Your task to perform on an android device: open app "DoorDash - Dasher" (install if not already installed) and enter user name: "resistor@inbox.com" and password: "cholera" Image 0: 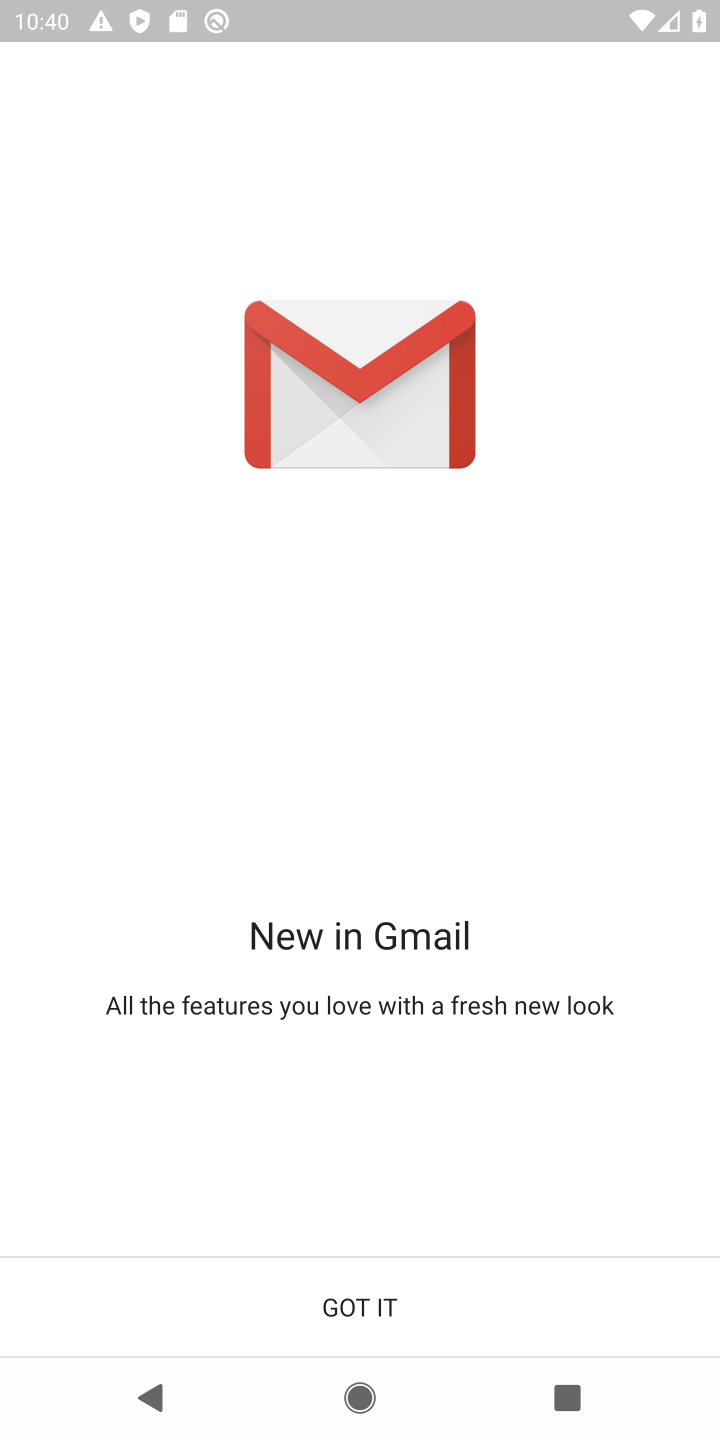
Step 0: press home button
Your task to perform on an android device: open app "DoorDash - Dasher" (install if not already installed) and enter user name: "resistor@inbox.com" and password: "cholera" Image 1: 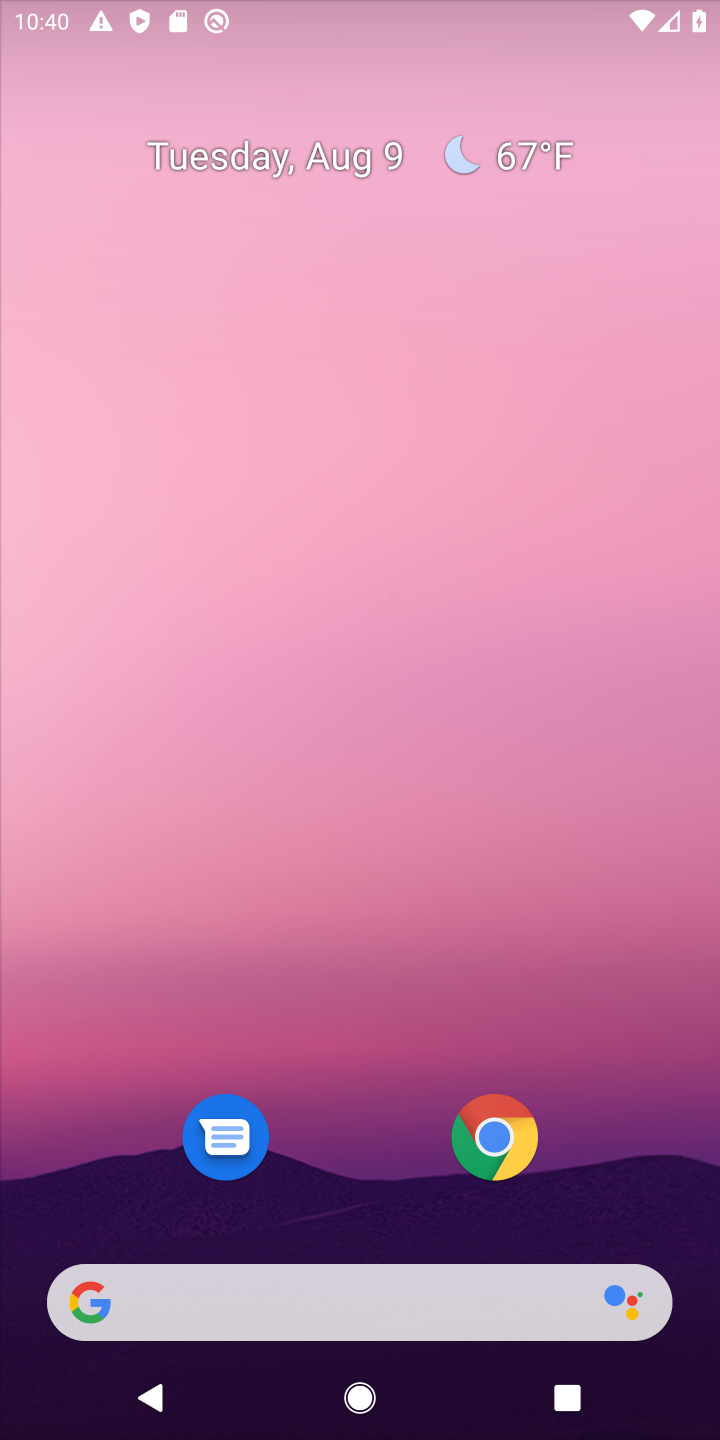
Step 1: drag from (662, 1170) to (433, 36)
Your task to perform on an android device: open app "DoorDash - Dasher" (install if not already installed) and enter user name: "resistor@inbox.com" and password: "cholera" Image 2: 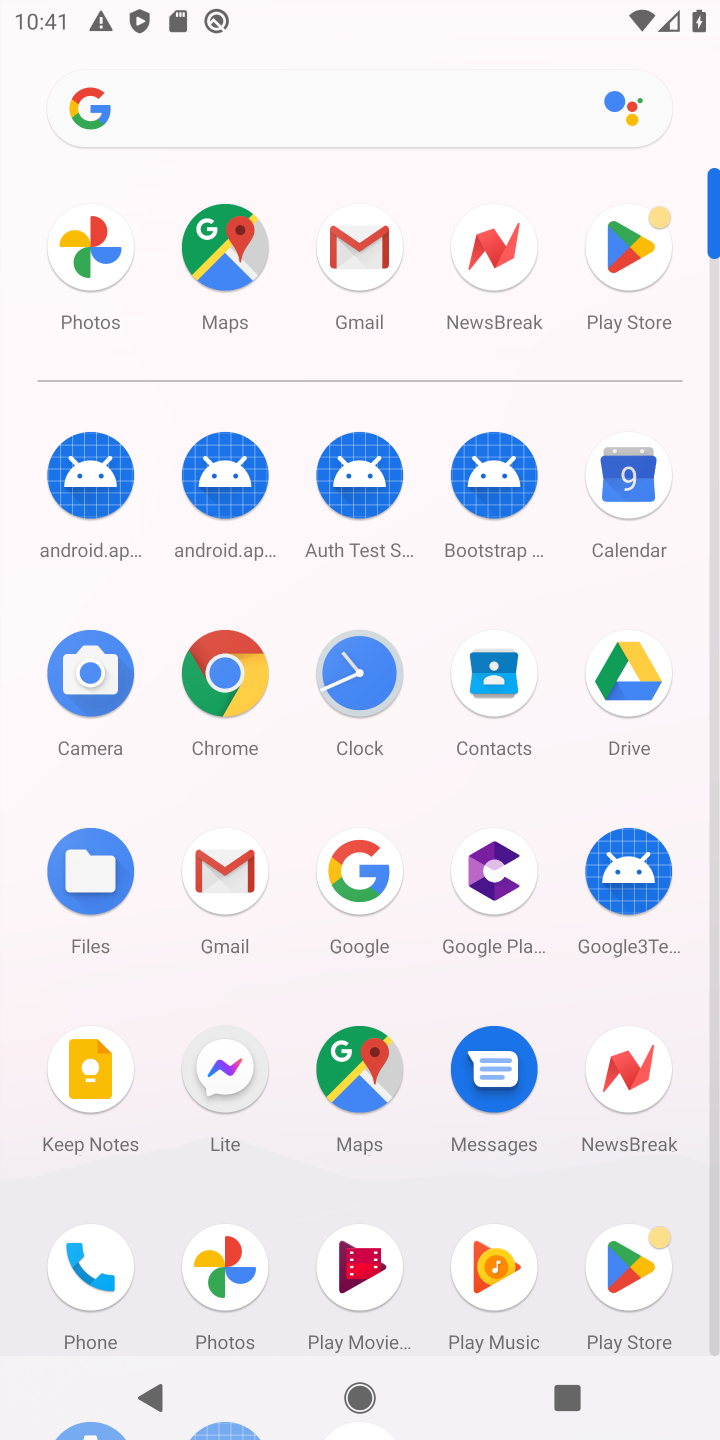
Step 2: click (602, 243)
Your task to perform on an android device: open app "DoorDash - Dasher" (install if not already installed) and enter user name: "resistor@inbox.com" and password: "cholera" Image 3: 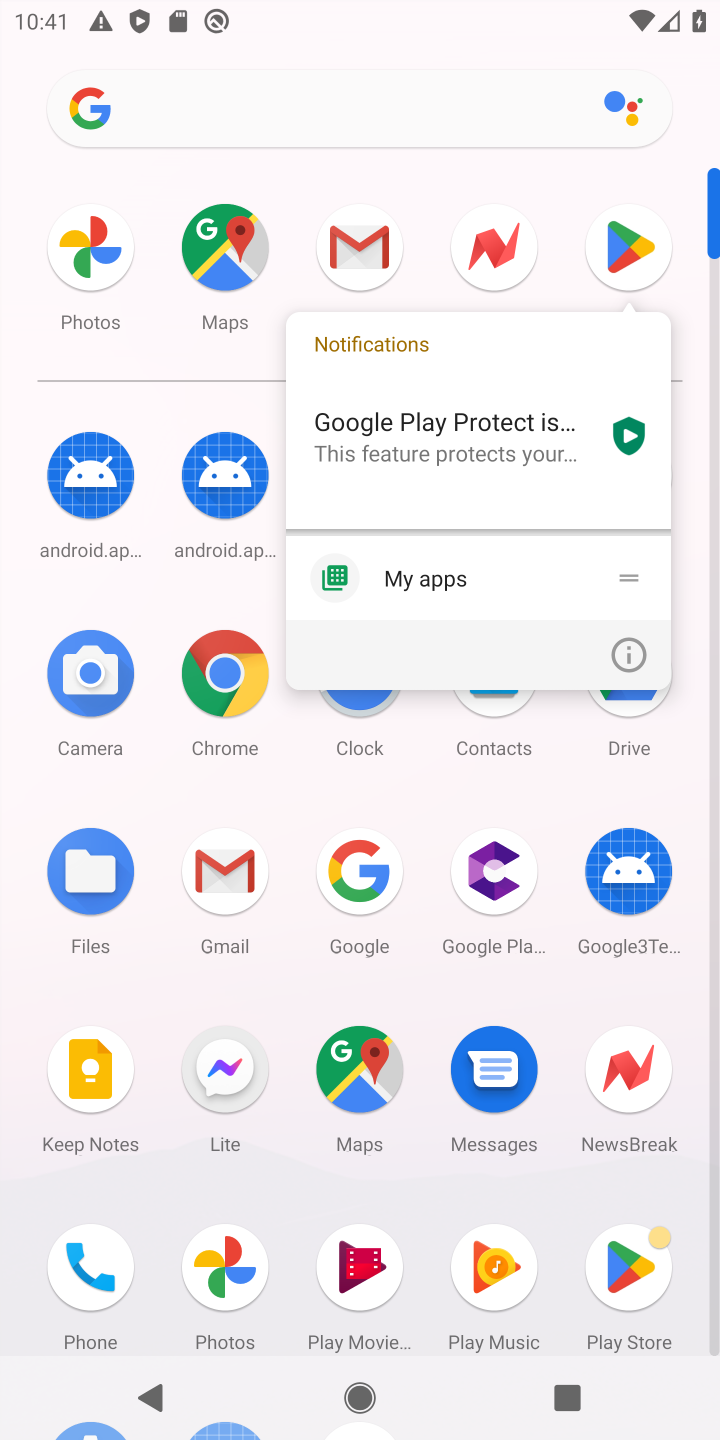
Step 3: click (602, 243)
Your task to perform on an android device: open app "DoorDash - Dasher" (install if not already installed) and enter user name: "resistor@inbox.com" and password: "cholera" Image 4: 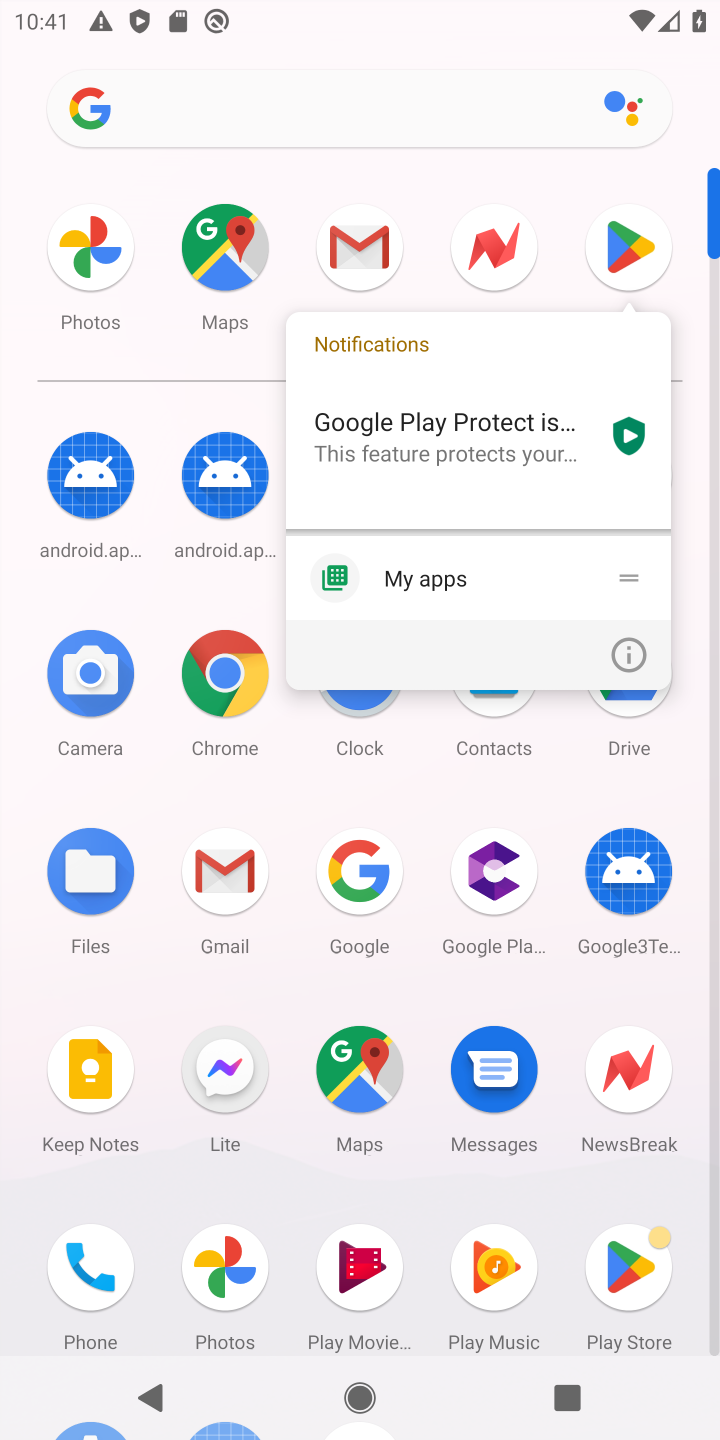
Step 4: click (602, 243)
Your task to perform on an android device: open app "DoorDash - Dasher" (install if not already installed) and enter user name: "resistor@inbox.com" and password: "cholera" Image 5: 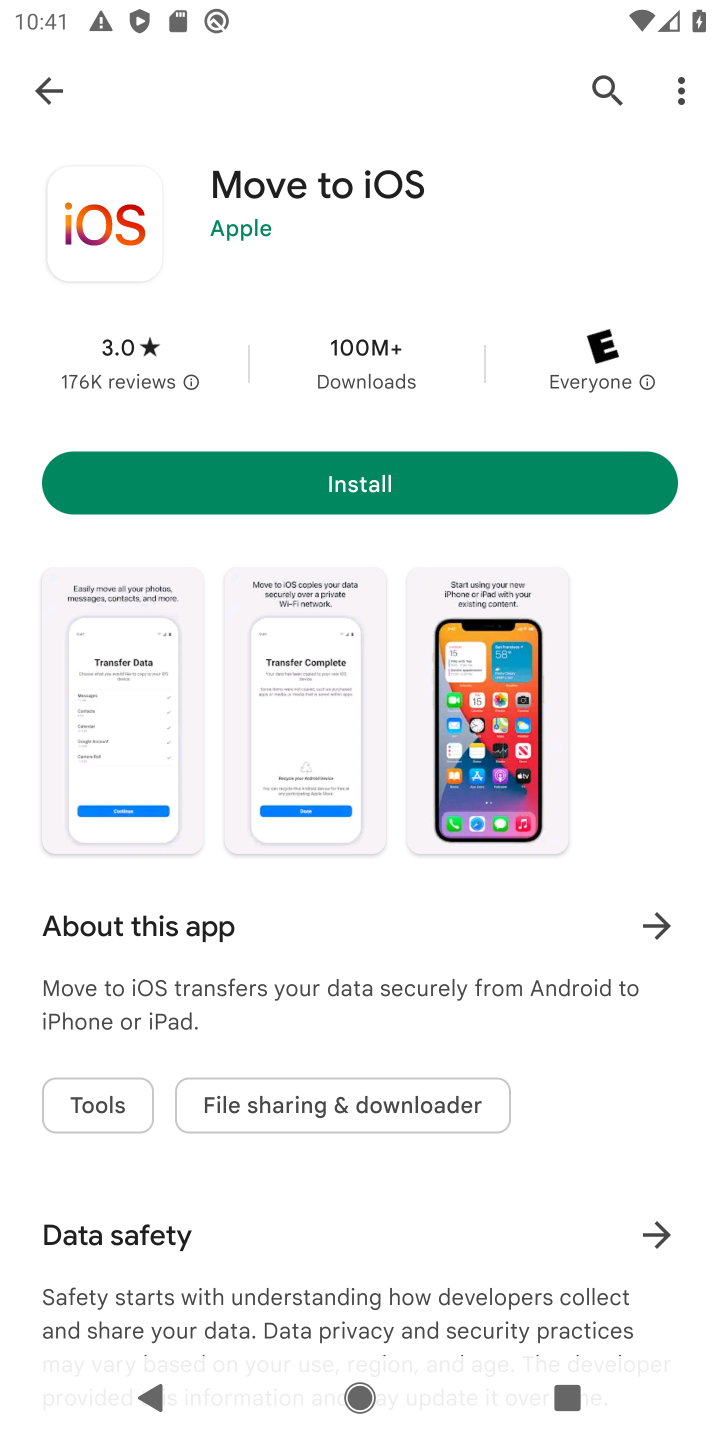
Step 5: press back button
Your task to perform on an android device: open app "DoorDash - Dasher" (install if not already installed) and enter user name: "resistor@inbox.com" and password: "cholera" Image 6: 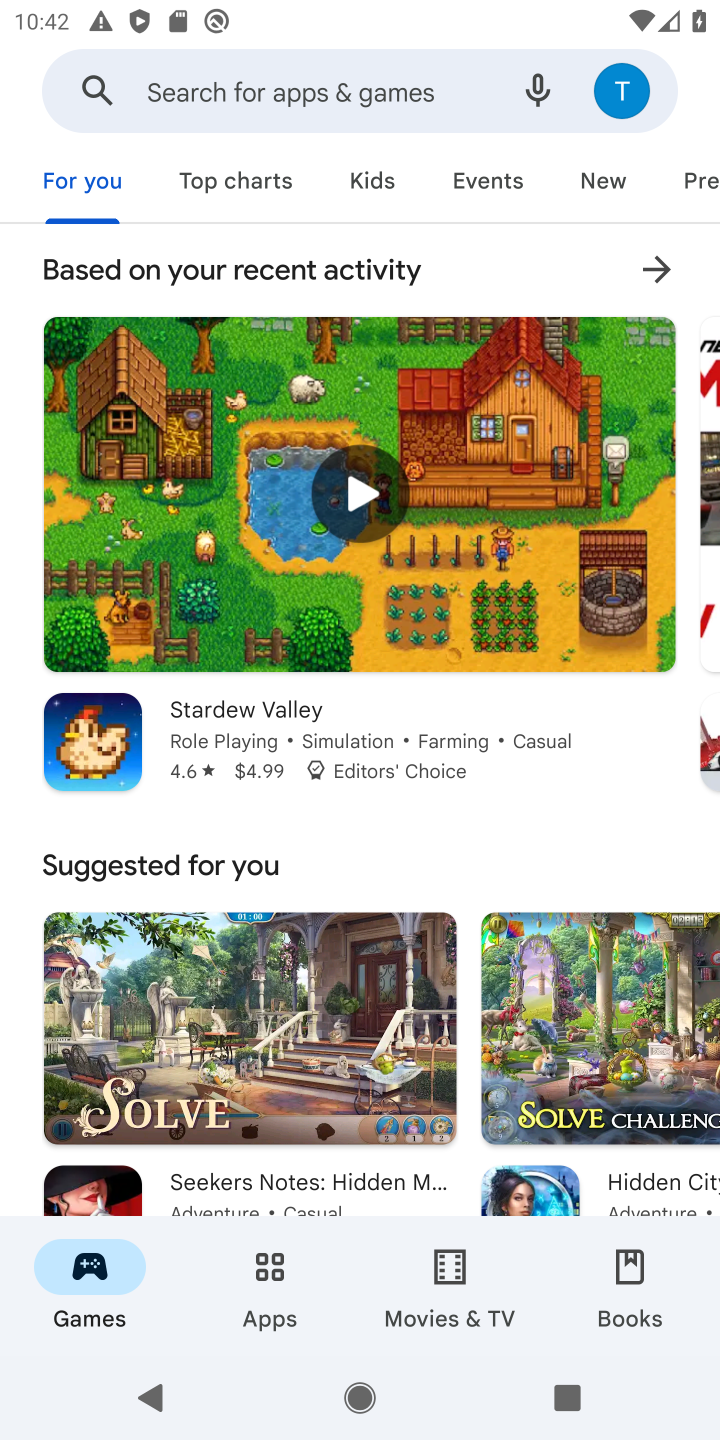
Step 6: click (253, 106)
Your task to perform on an android device: open app "DoorDash - Dasher" (install if not already installed) and enter user name: "resistor@inbox.com" and password: "cholera" Image 7: 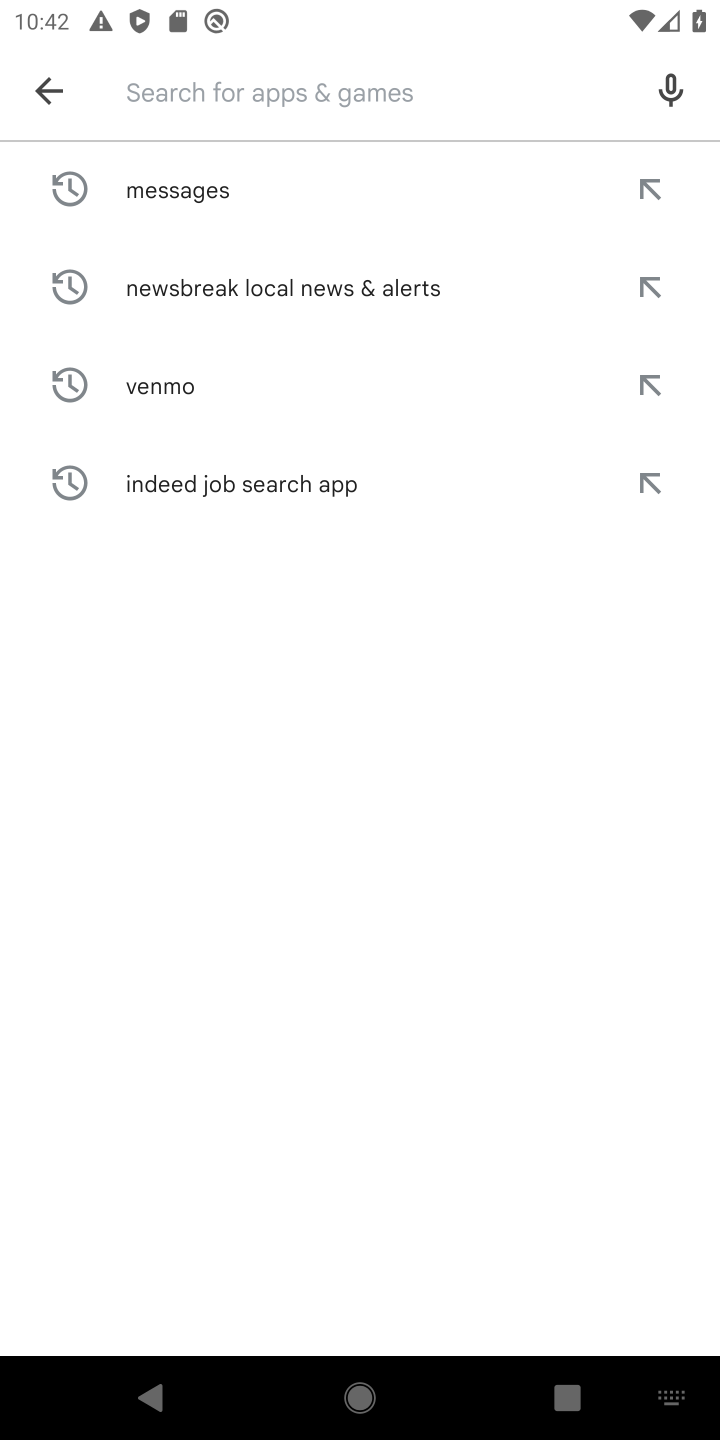
Step 7: type "DoorDash - Dasher"
Your task to perform on an android device: open app "DoorDash - Dasher" (install if not already installed) and enter user name: "resistor@inbox.com" and password: "cholera" Image 8: 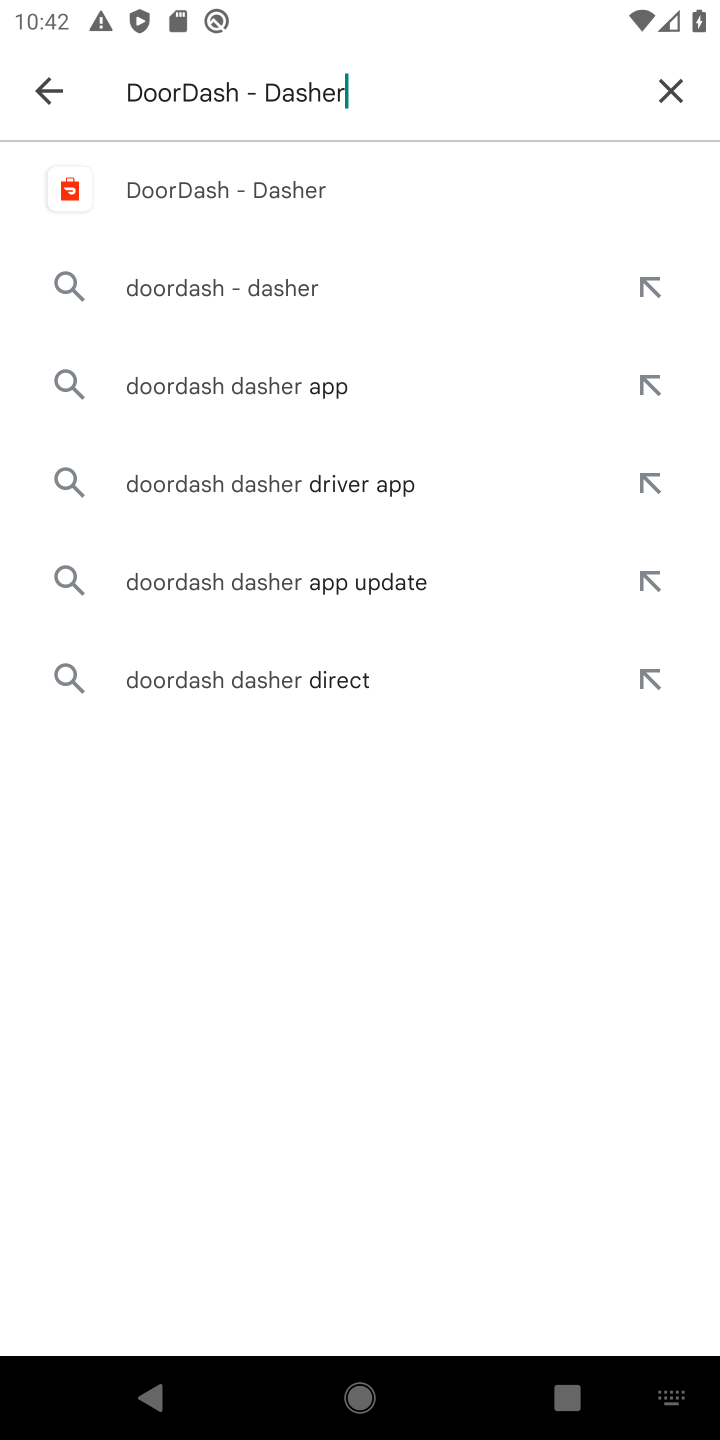
Step 8: click (161, 180)
Your task to perform on an android device: open app "DoorDash - Dasher" (install if not already installed) and enter user name: "resistor@inbox.com" and password: "cholera" Image 9: 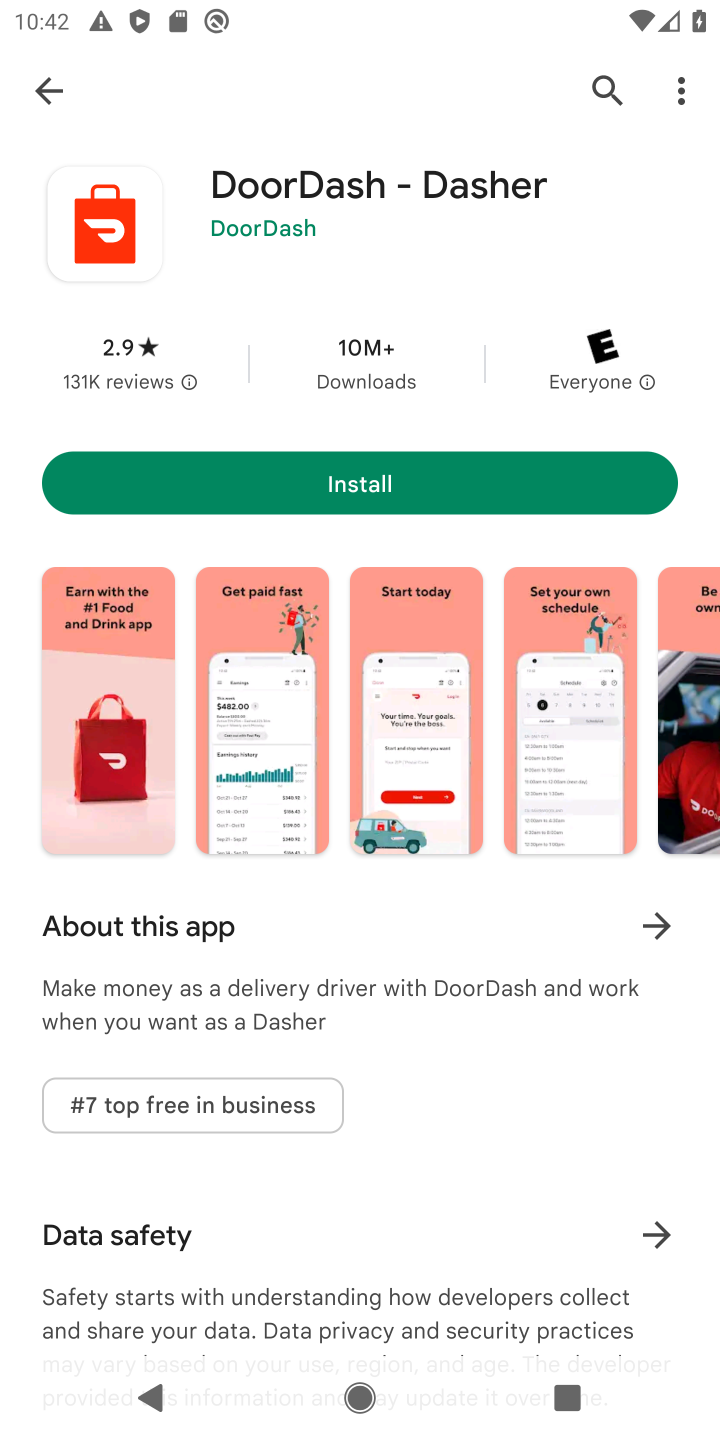
Step 9: task complete